Your task to perform on an android device: change the upload size in google photos Image 0: 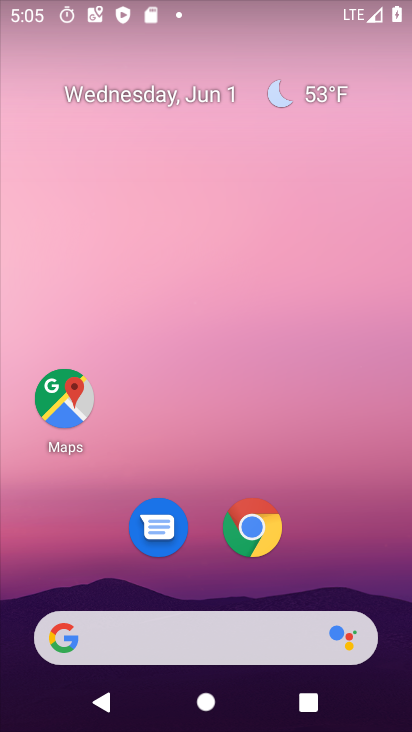
Step 0: drag from (267, 561) to (328, 53)
Your task to perform on an android device: change the upload size in google photos Image 1: 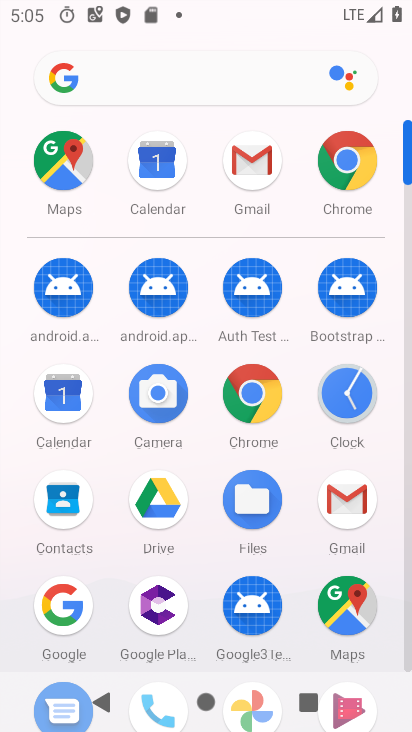
Step 1: drag from (296, 542) to (369, 43)
Your task to perform on an android device: change the upload size in google photos Image 2: 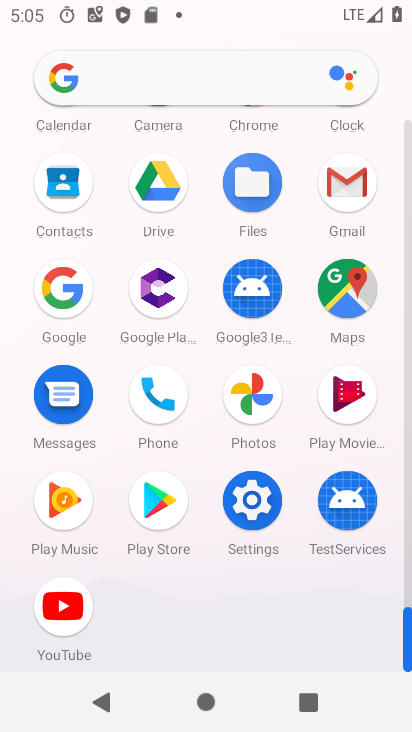
Step 2: click (257, 399)
Your task to perform on an android device: change the upload size in google photos Image 3: 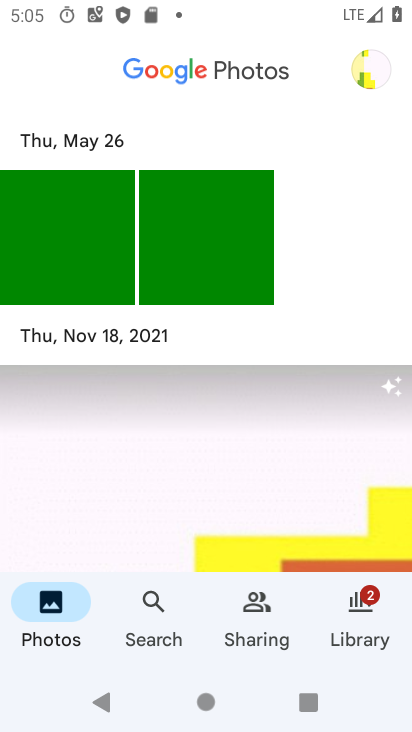
Step 3: click (369, 56)
Your task to perform on an android device: change the upload size in google photos Image 4: 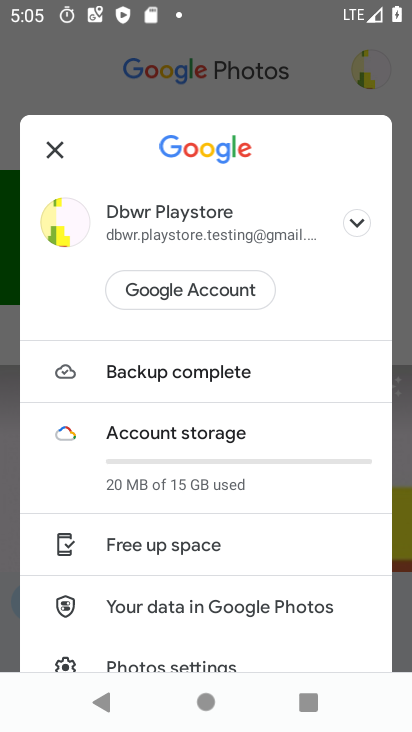
Step 4: drag from (225, 508) to (231, 188)
Your task to perform on an android device: change the upload size in google photos Image 5: 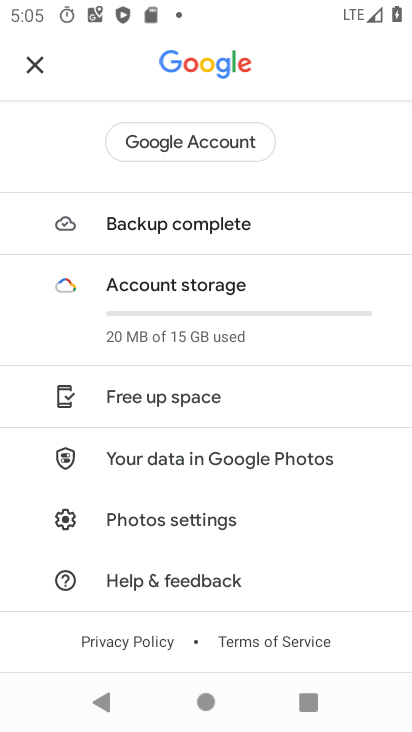
Step 5: click (175, 513)
Your task to perform on an android device: change the upload size in google photos Image 6: 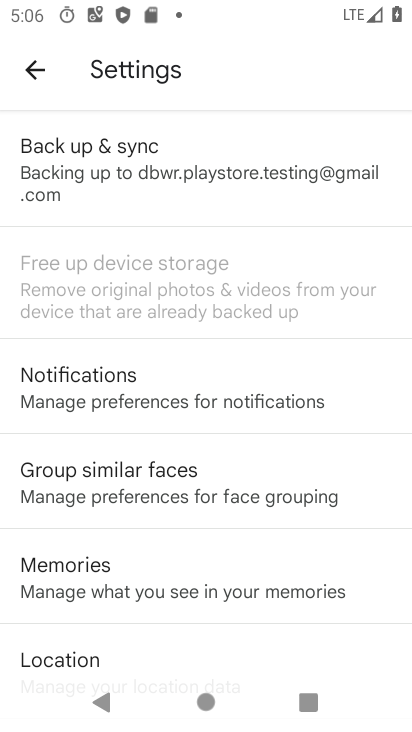
Step 6: click (139, 168)
Your task to perform on an android device: change the upload size in google photos Image 7: 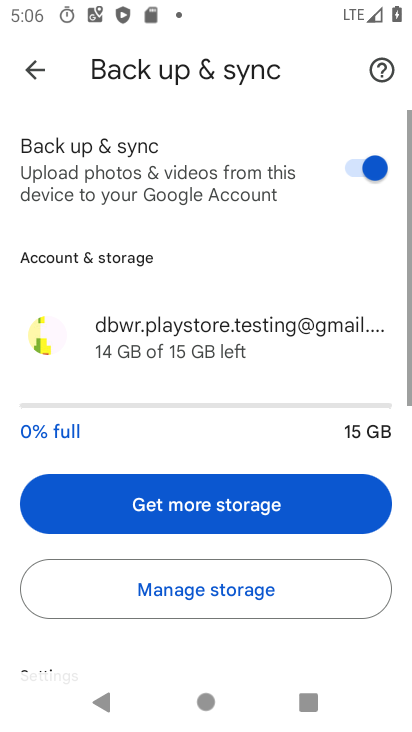
Step 7: drag from (214, 583) to (221, 192)
Your task to perform on an android device: change the upload size in google photos Image 8: 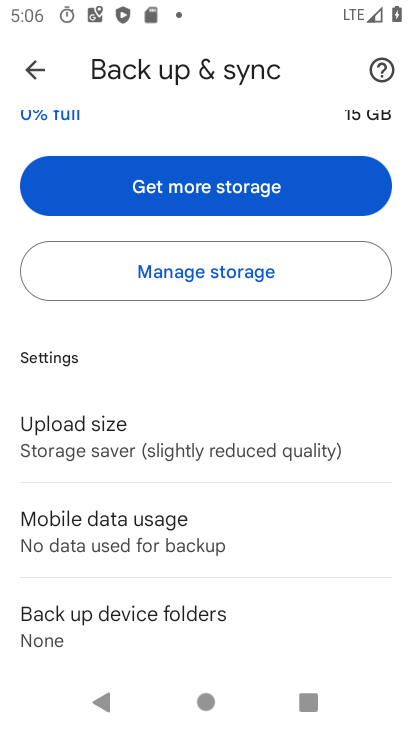
Step 8: click (84, 437)
Your task to perform on an android device: change the upload size in google photos Image 9: 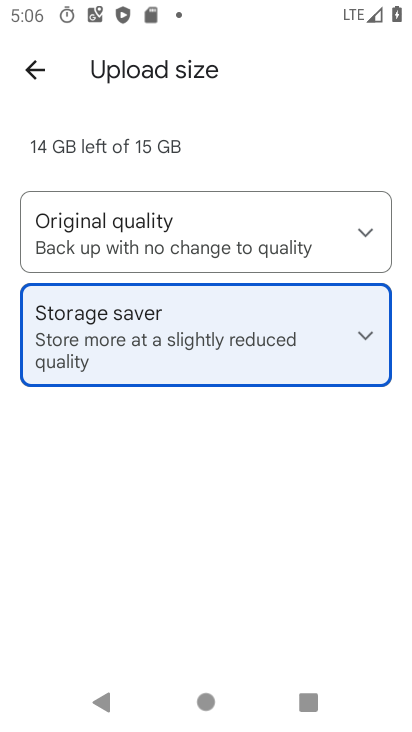
Step 9: click (117, 241)
Your task to perform on an android device: change the upload size in google photos Image 10: 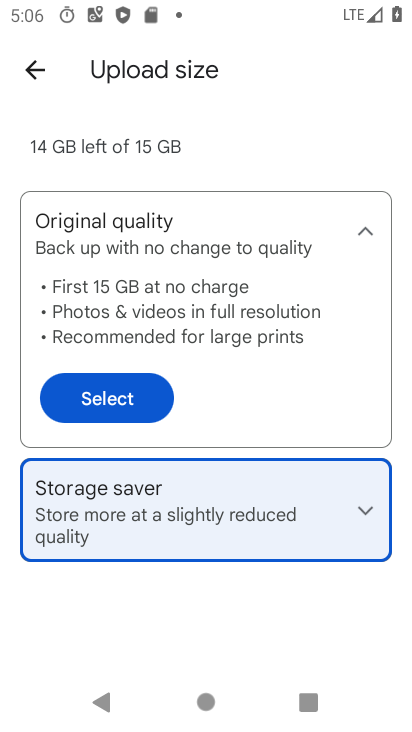
Step 10: click (97, 387)
Your task to perform on an android device: change the upload size in google photos Image 11: 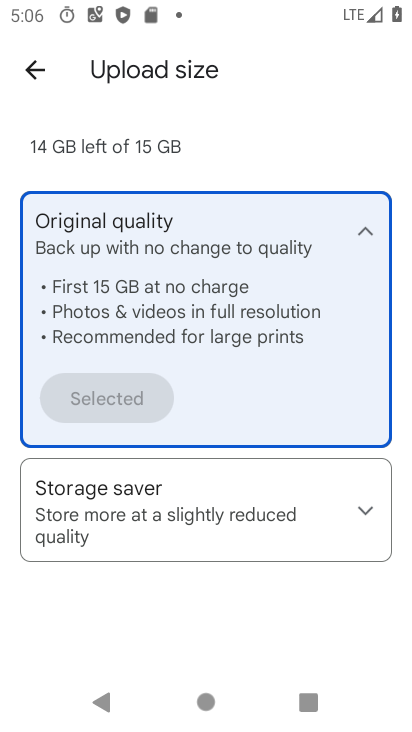
Step 11: task complete